Your task to perform on an android device: stop showing notifications on the lock screen Image 0: 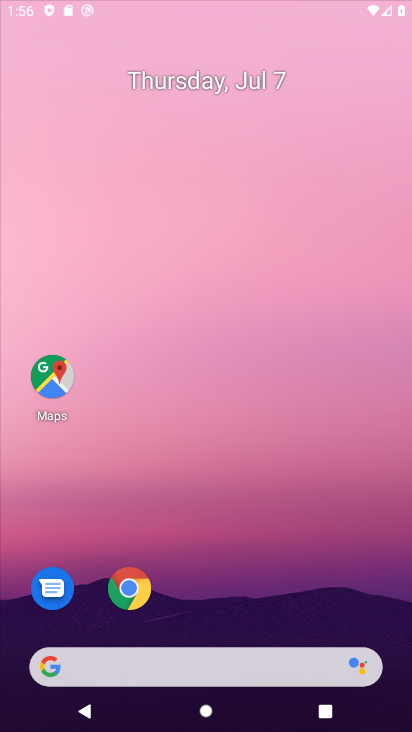
Step 0: click (357, 70)
Your task to perform on an android device: stop showing notifications on the lock screen Image 1: 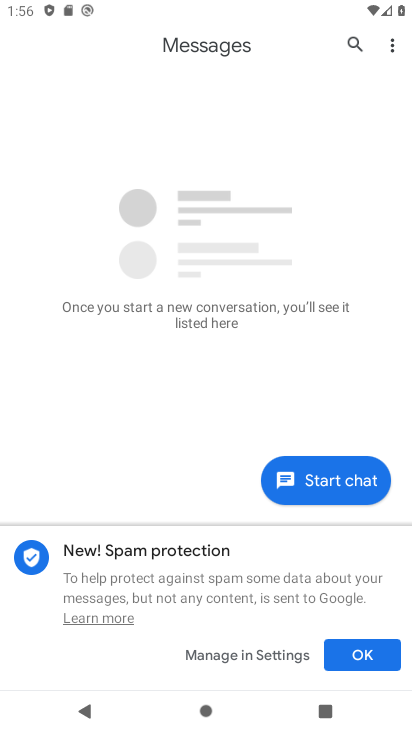
Step 1: press home button
Your task to perform on an android device: stop showing notifications on the lock screen Image 2: 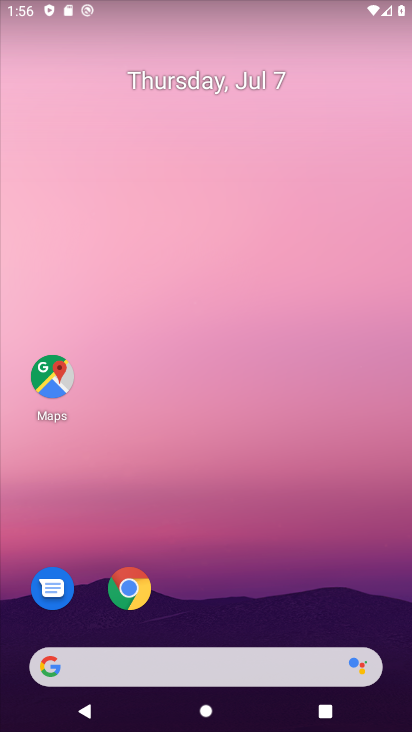
Step 2: drag from (389, 671) to (338, 84)
Your task to perform on an android device: stop showing notifications on the lock screen Image 3: 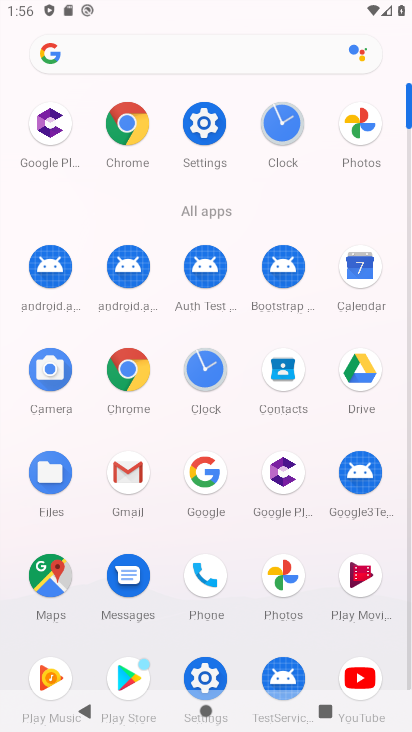
Step 3: click (205, 676)
Your task to perform on an android device: stop showing notifications on the lock screen Image 4: 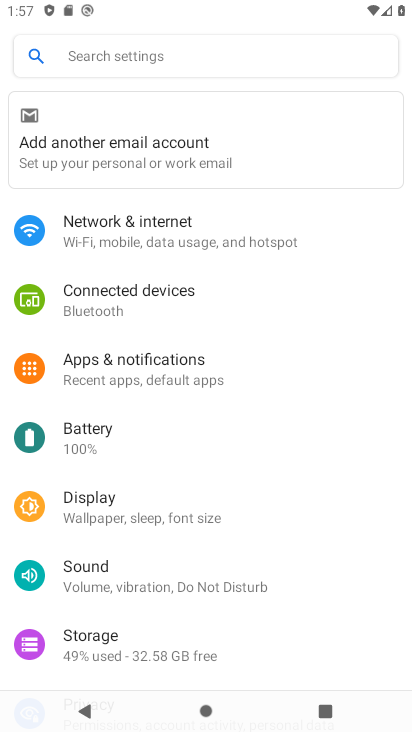
Step 4: click (118, 367)
Your task to perform on an android device: stop showing notifications on the lock screen Image 5: 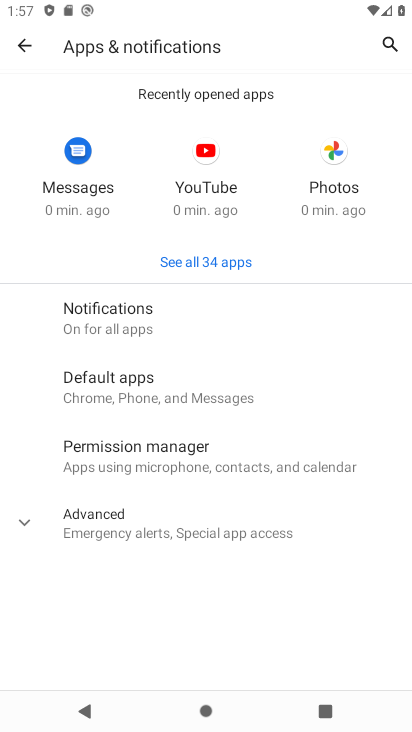
Step 5: click (114, 311)
Your task to perform on an android device: stop showing notifications on the lock screen Image 6: 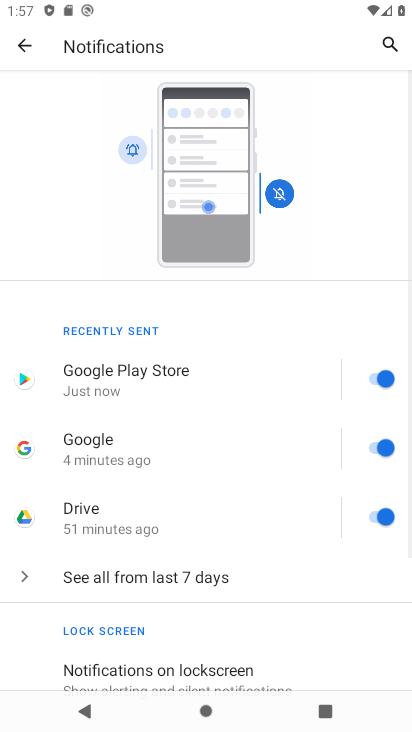
Step 6: drag from (274, 639) to (297, 245)
Your task to perform on an android device: stop showing notifications on the lock screen Image 7: 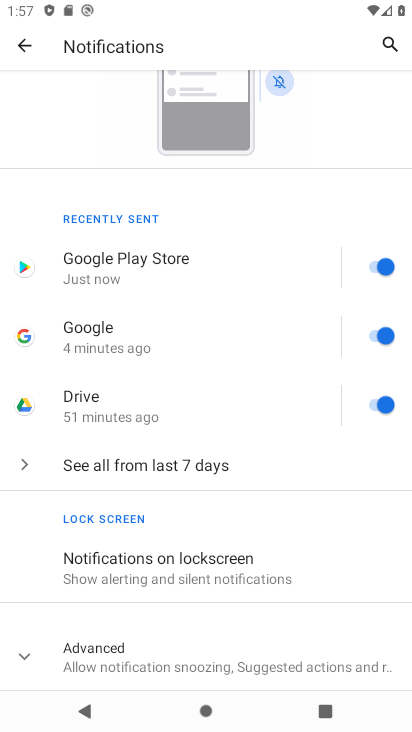
Step 7: click (152, 565)
Your task to perform on an android device: stop showing notifications on the lock screen Image 8: 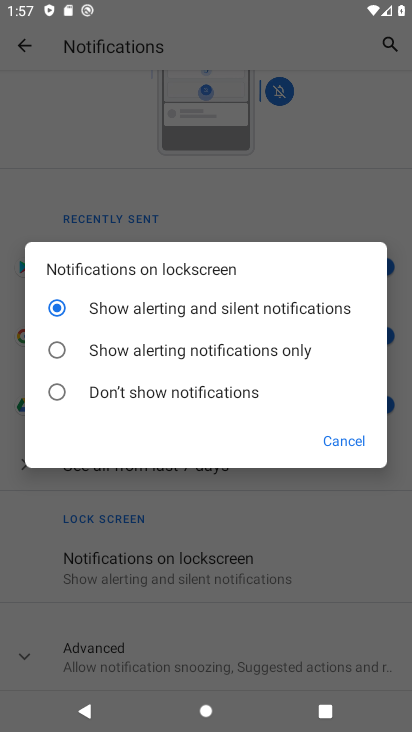
Step 8: click (56, 392)
Your task to perform on an android device: stop showing notifications on the lock screen Image 9: 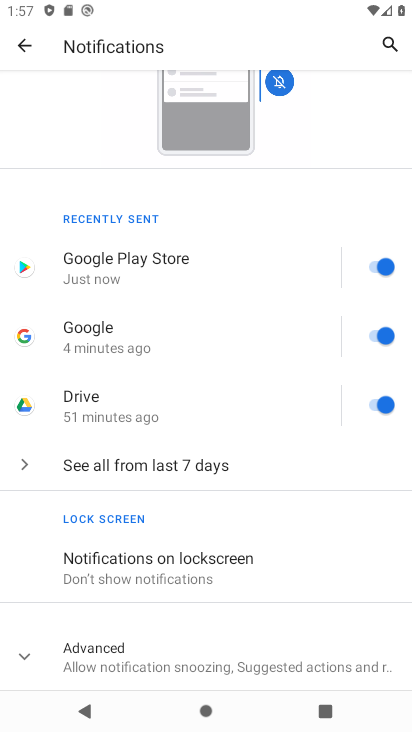
Step 9: task complete